Your task to perform on an android device: toggle wifi Image 0: 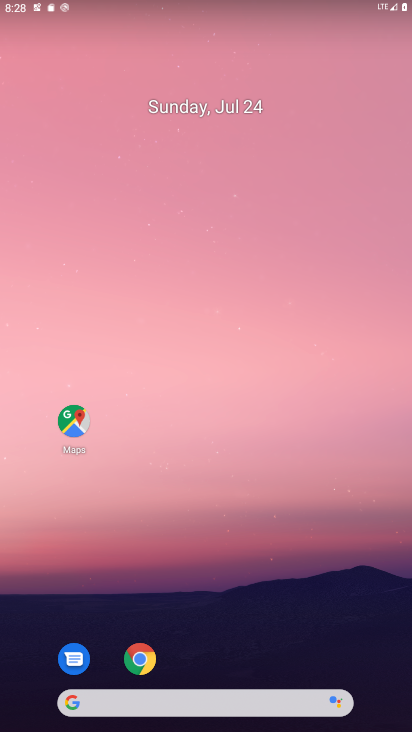
Step 0: drag from (198, 729) to (200, 76)
Your task to perform on an android device: toggle wifi Image 1: 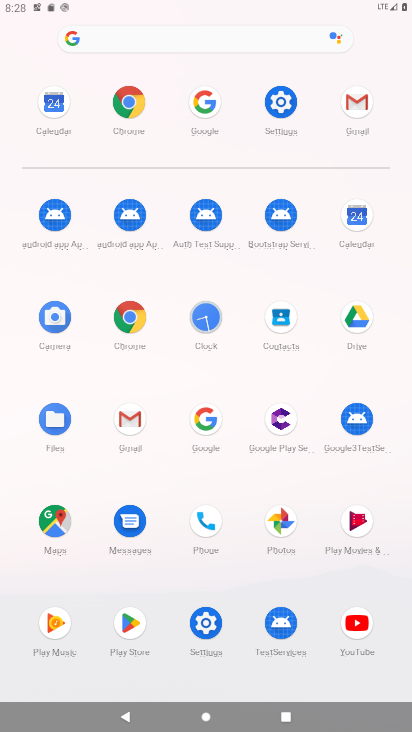
Step 1: click (278, 108)
Your task to perform on an android device: toggle wifi Image 2: 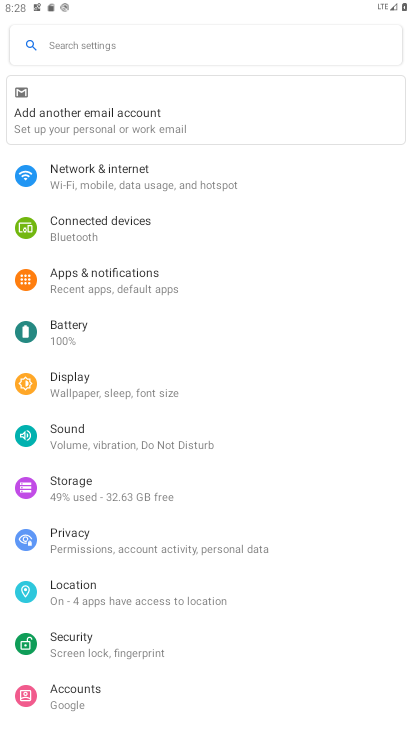
Step 2: click (101, 184)
Your task to perform on an android device: toggle wifi Image 3: 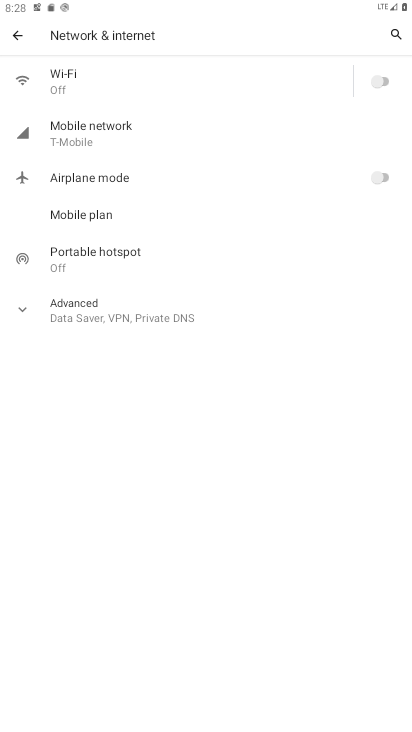
Step 3: click (386, 77)
Your task to perform on an android device: toggle wifi Image 4: 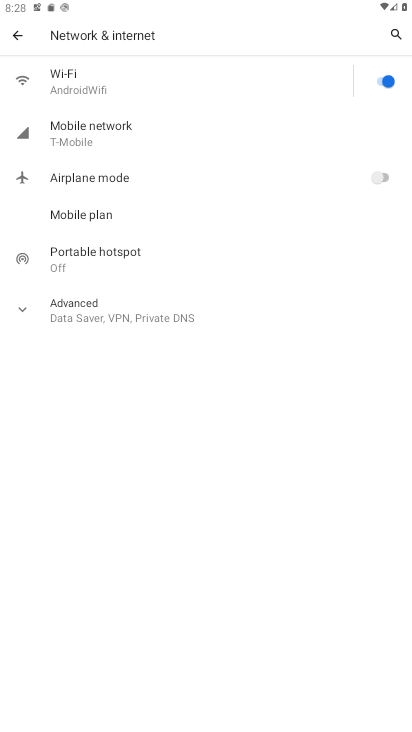
Step 4: task complete